Your task to perform on an android device: change the upload size in google photos Image 0: 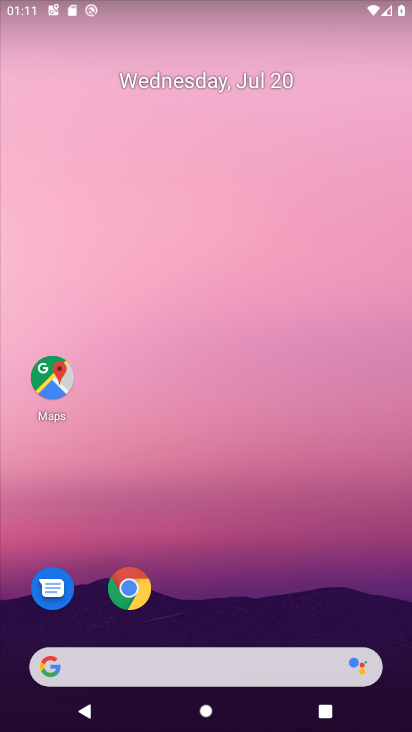
Step 0: drag from (327, 569) to (330, 245)
Your task to perform on an android device: change the upload size in google photos Image 1: 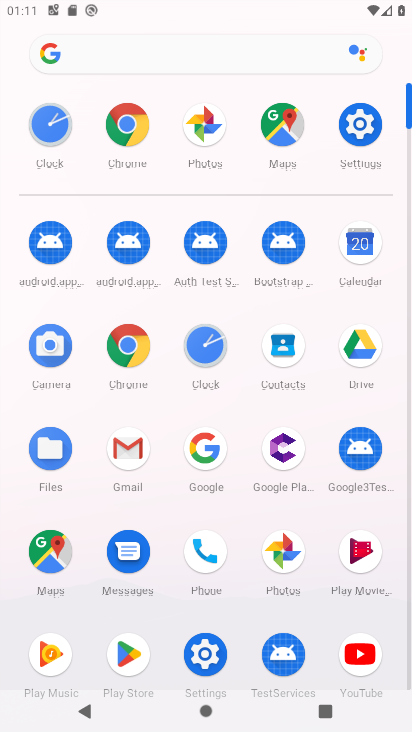
Step 1: click (273, 548)
Your task to perform on an android device: change the upload size in google photos Image 2: 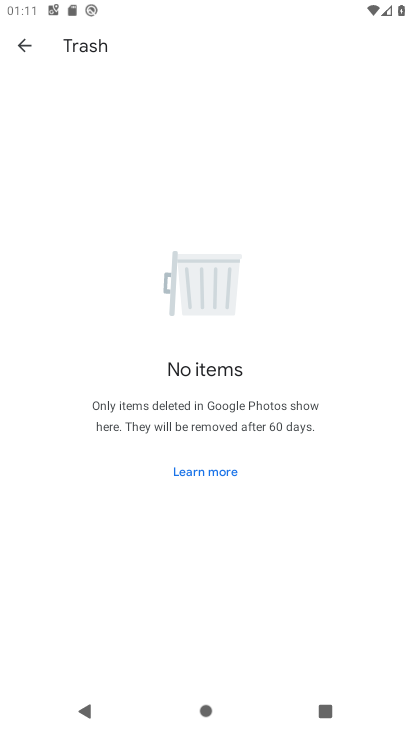
Step 2: click (13, 38)
Your task to perform on an android device: change the upload size in google photos Image 3: 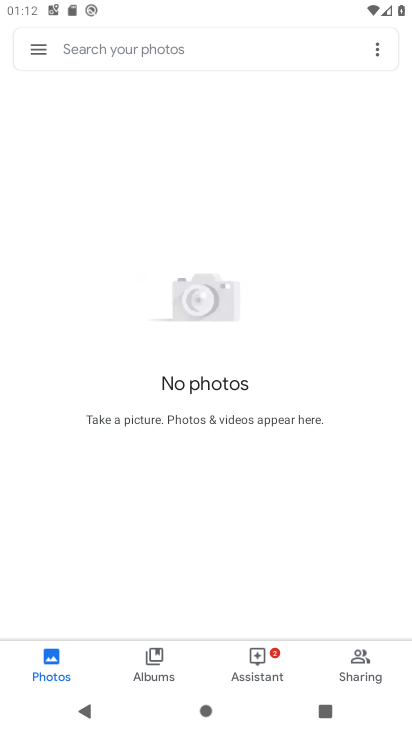
Step 3: click (33, 46)
Your task to perform on an android device: change the upload size in google photos Image 4: 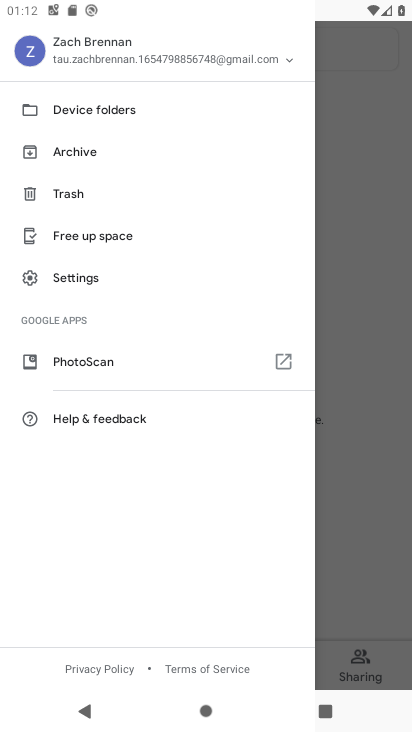
Step 4: click (98, 270)
Your task to perform on an android device: change the upload size in google photos Image 5: 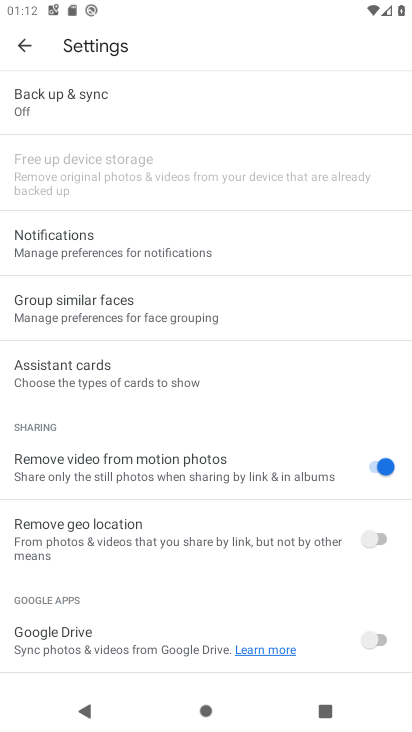
Step 5: click (71, 109)
Your task to perform on an android device: change the upload size in google photos Image 6: 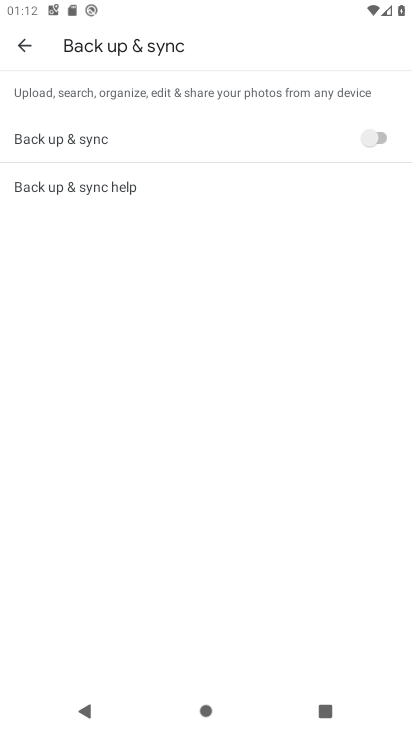
Step 6: click (23, 37)
Your task to perform on an android device: change the upload size in google photos Image 7: 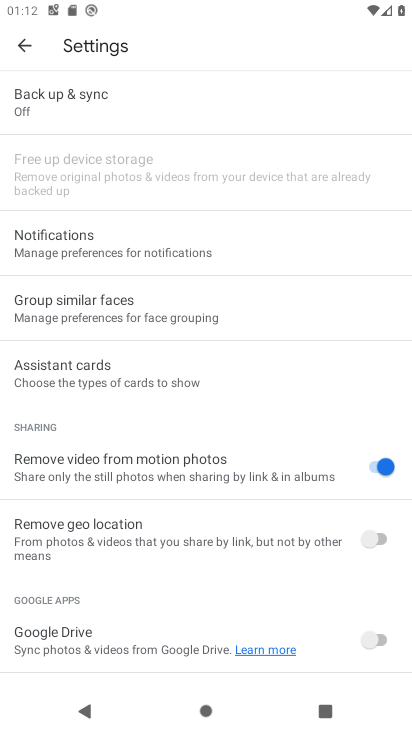
Step 7: drag from (86, 444) to (125, 165)
Your task to perform on an android device: change the upload size in google photos Image 8: 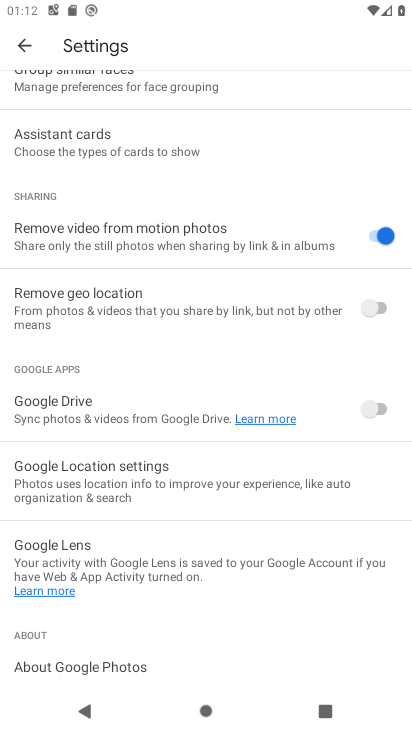
Step 8: click (24, 53)
Your task to perform on an android device: change the upload size in google photos Image 9: 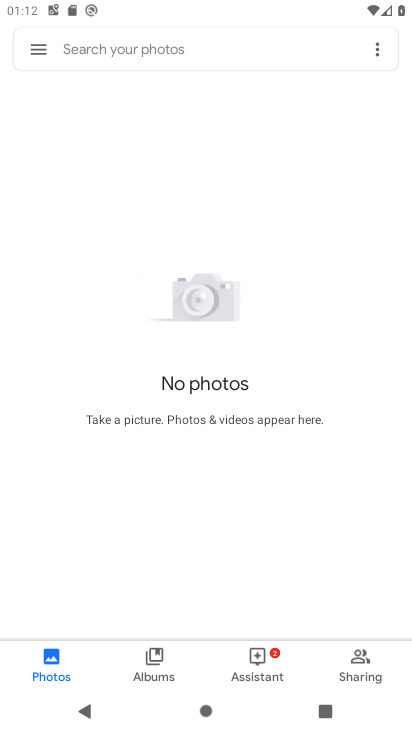
Step 9: click (33, 43)
Your task to perform on an android device: change the upload size in google photos Image 10: 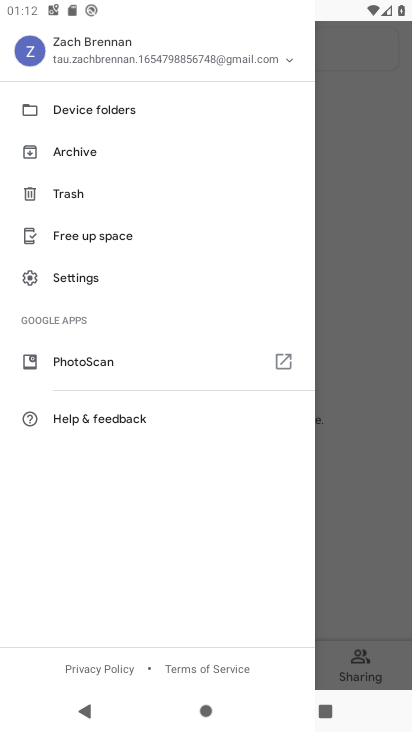
Step 10: click (89, 278)
Your task to perform on an android device: change the upload size in google photos Image 11: 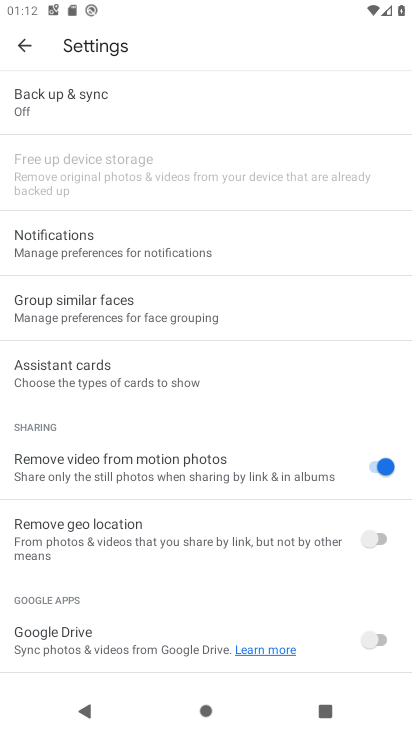
Step 11: click (115, 100)
Your task to perform on an android device: change the upload size in google photos Image 12: 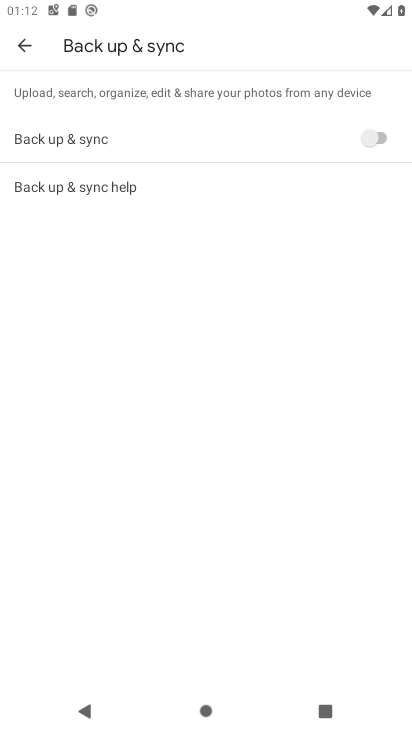
Step 12: click (63, 137)
Your task to perform on an android device: change the upload size in google photos Image 13: 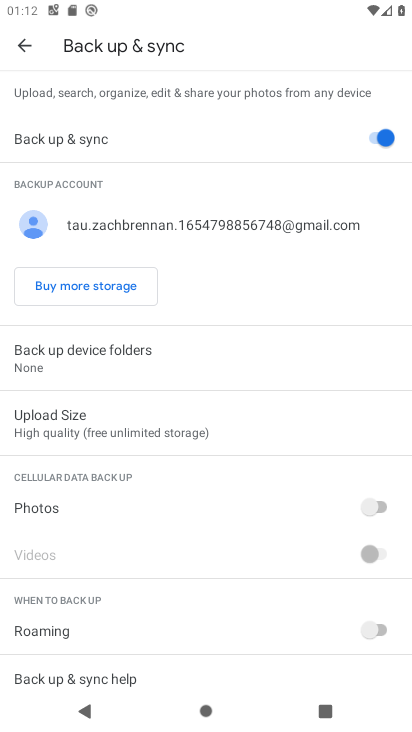
Step 13: click (121, 425)
Your task to perform on an android device: change the upload size in google photos Image 14: 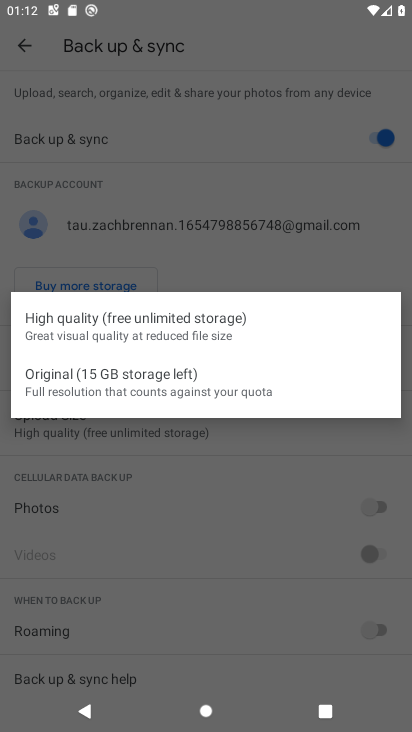
Step 14: click (109, 371)
Your task to perform on an android device: change the upload size in google photos Image 15: 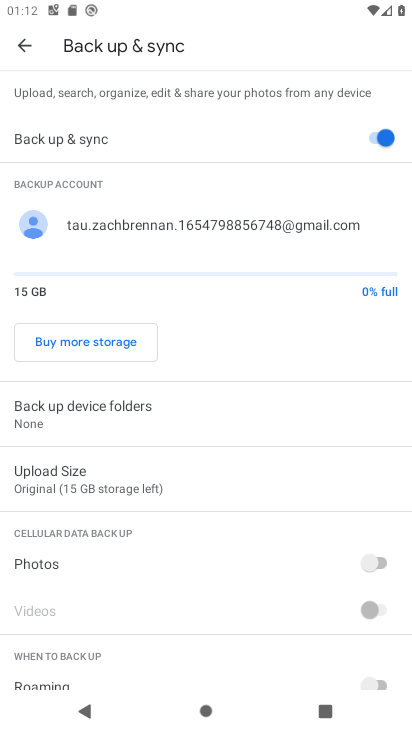
Step 15: task complete